Your task to perform on an android device: What's the weather going to be this weekend? Image 0: 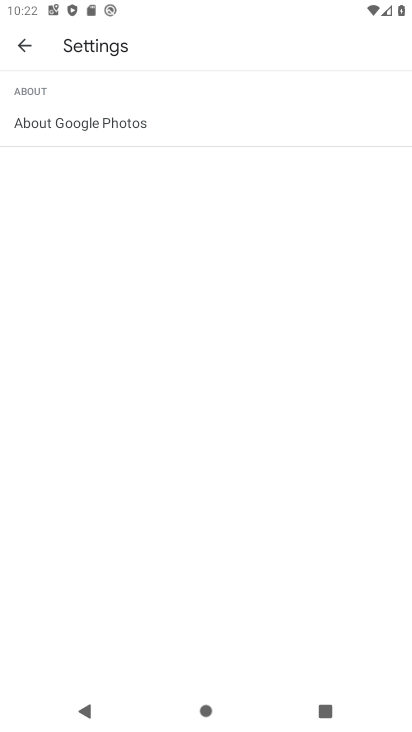
Step 0: press home button
Your task to perform on an android device: What's the weather going to be this weekend? Image 1: 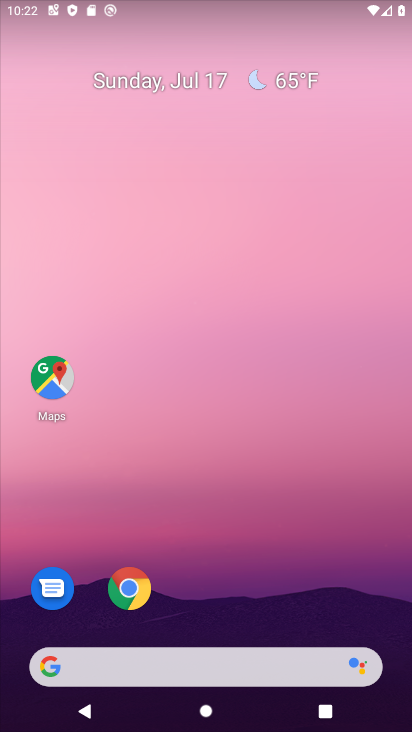
Step 1: click (130, 585)
Your task to perform on an android device: What's the weather going to be this weekend? Image 2: 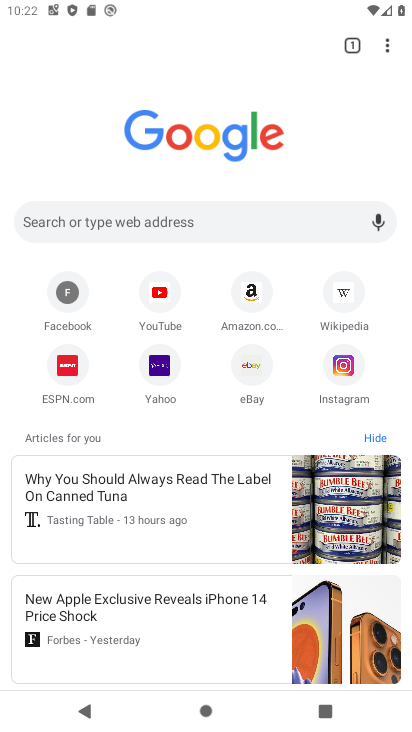
Step 2: click (119, 215)
Your task to perform on an android device: What's the weather going to be this weekend? Image 3: 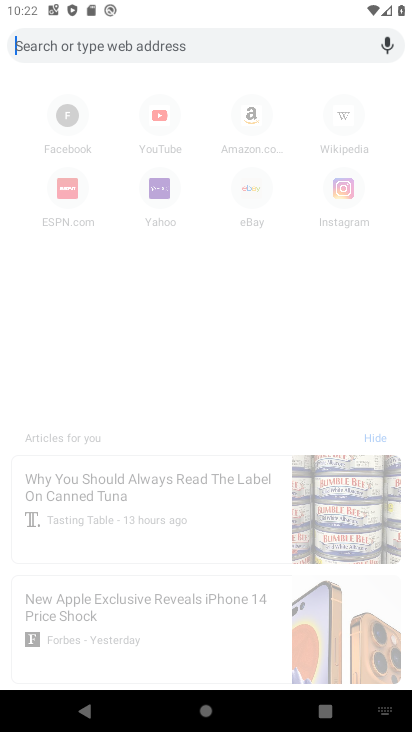
Step 3: type "weather"
Your task to perform on an android device: What's the weather going to be this weekend? Image 4: 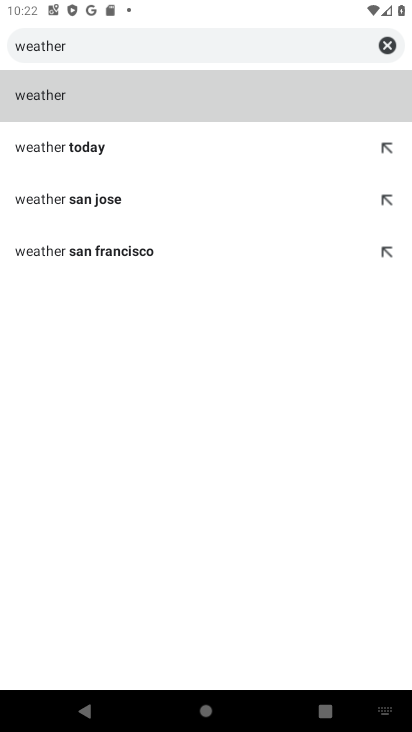
Step 4: click (57, 100)
Your task to perform on an android device: What's the weather going to be this weekend? Image 5: 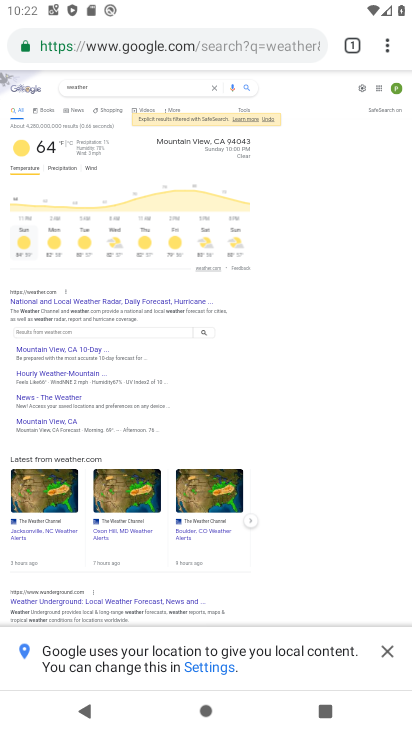
Step 5: task complete